Your task to perform on an android device: change keyboard looks Image 0: 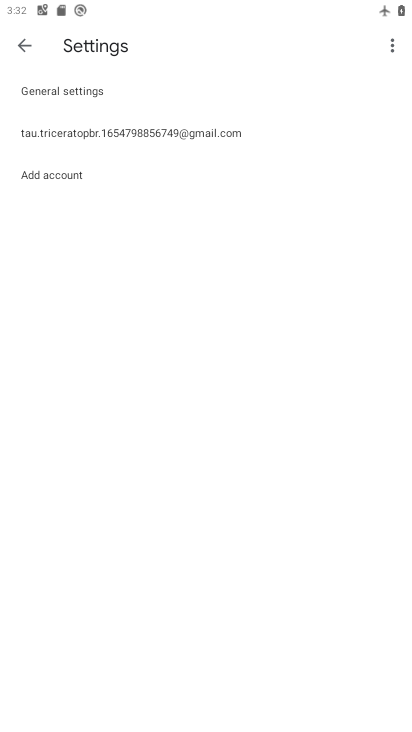
Step 0: press home button
Your task to perform on an android device: change keyboard looks Image 1: 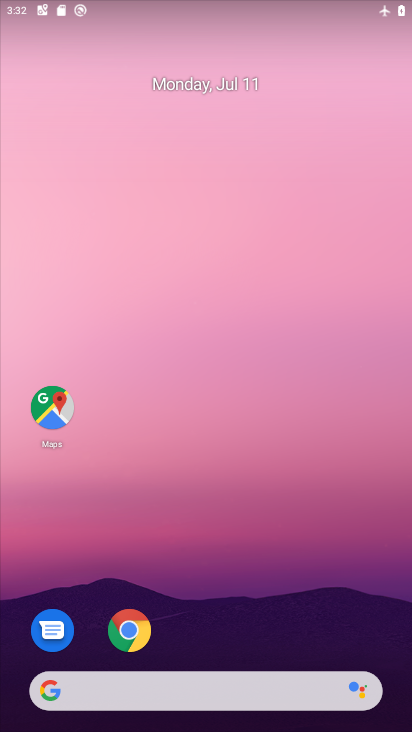
Step 1: drag from (266, 655) to (267, 108)
Your task to perform on an android device: change keyboard looks Image 2: 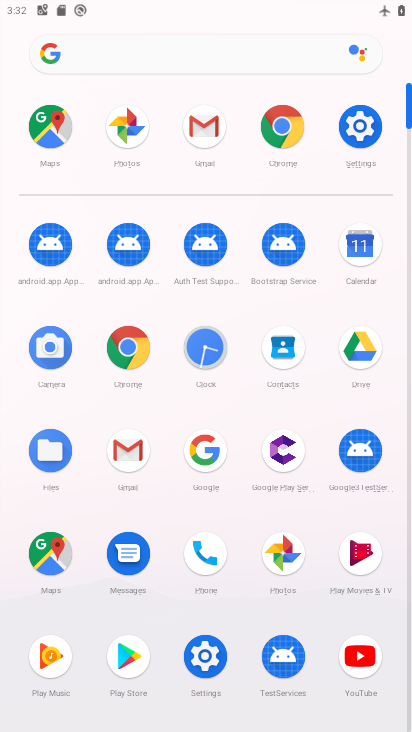
Step 2: click (345, 123)
Your task to perform on an android device: change keyboard looks Image 3: 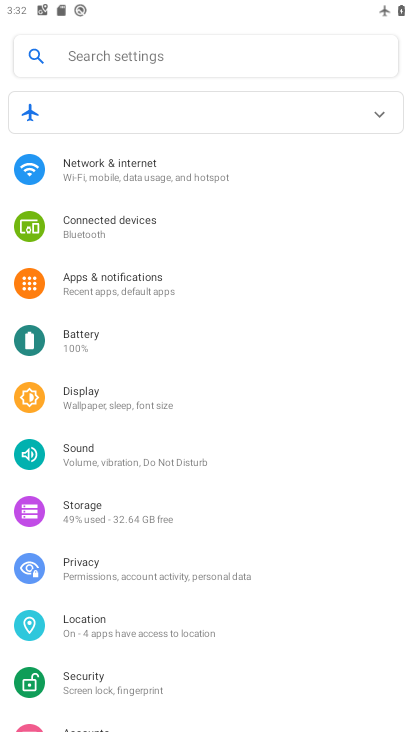
Step 3: drag from (197, 574) to (186, 259)
Your task to perform on an android device: change keyboard looks Image 4: 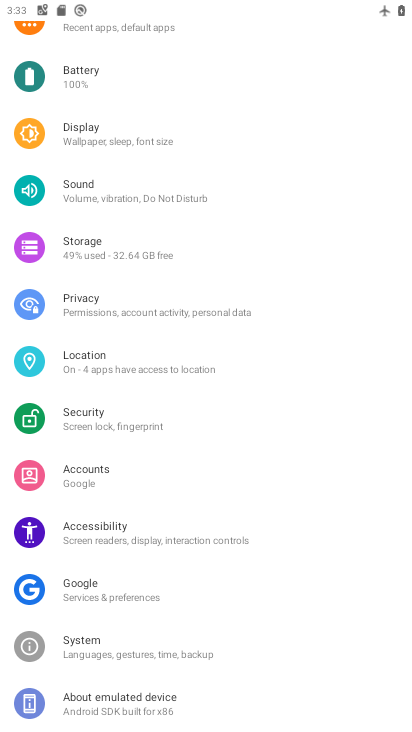
Step 4: click (114, 626)
Your task to perform on an android device: change keyboard looks Image 5: 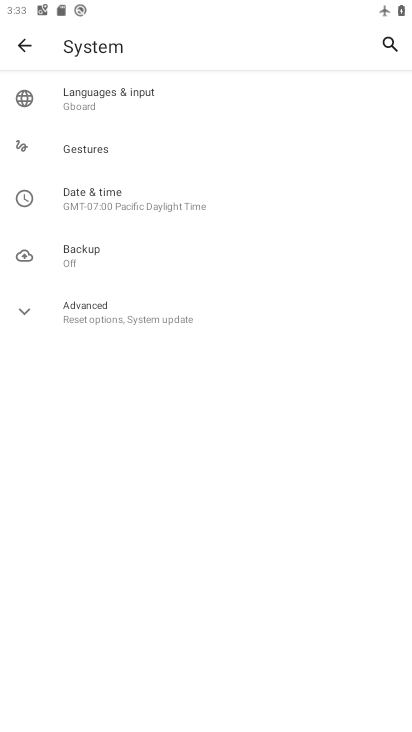
Step 5: click (151, 89)
Your task to perform on an android device: change keyboard looks Image 6: 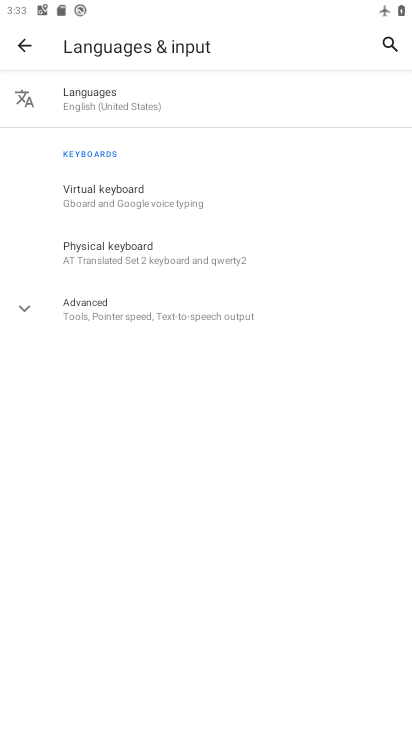
Step 6: click (154, 199)
Your task to perform on an android device: change keyboard looks Image 7: 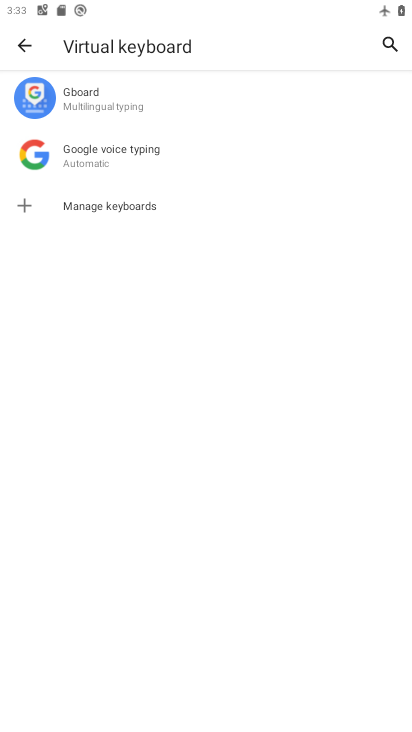
Step 7: click (104, 100)
Your task to perform on an android device: change keyboard looks Image 8: 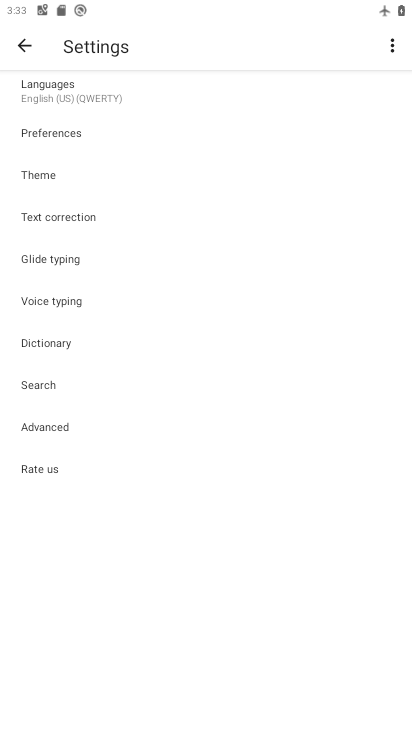
Step 8: click (130, 183)
Your task to perform on an android device: change keyboard looks Image 9: 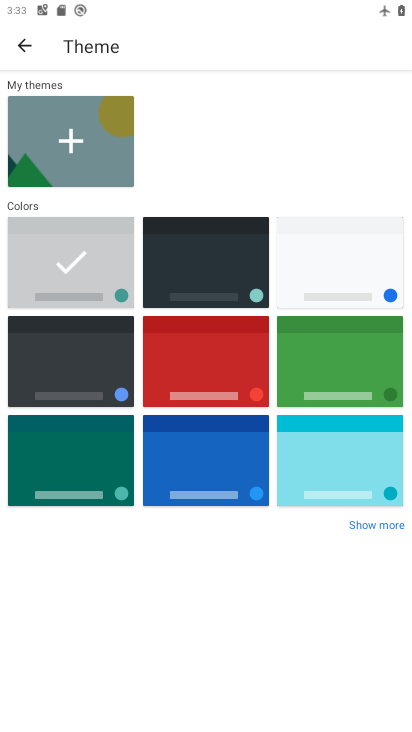
Step 9: click (178, 271)
Your task to perform on an android device: change keyboard looks Image 10: 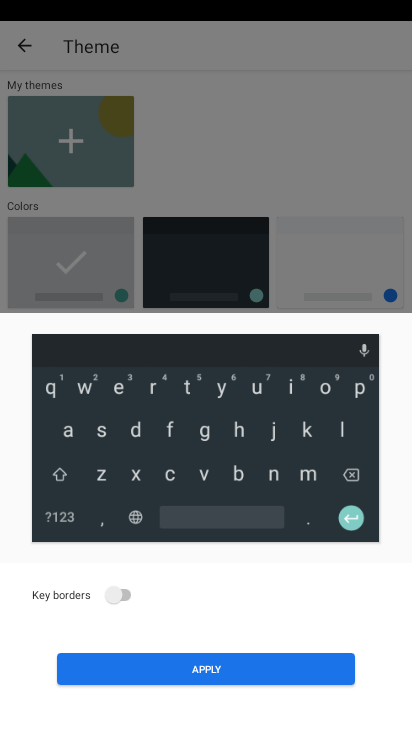
Step 10: click (232, 680)
Your task to perform on an android device: change keyboard looks Image 11: 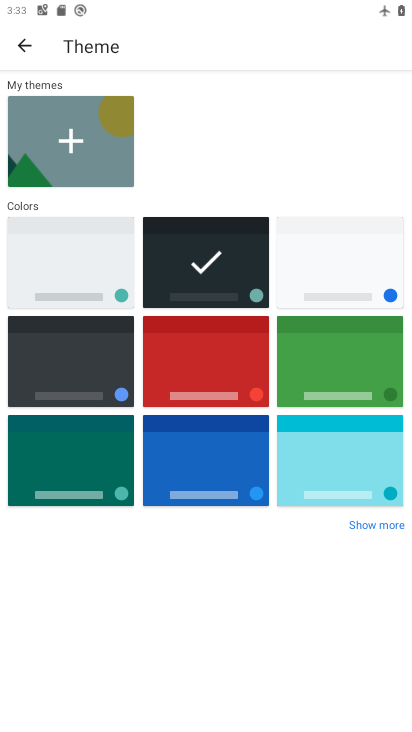
Step 11: task complete